Your task to perform on an android device: Go to Yahoo.com Image 0: 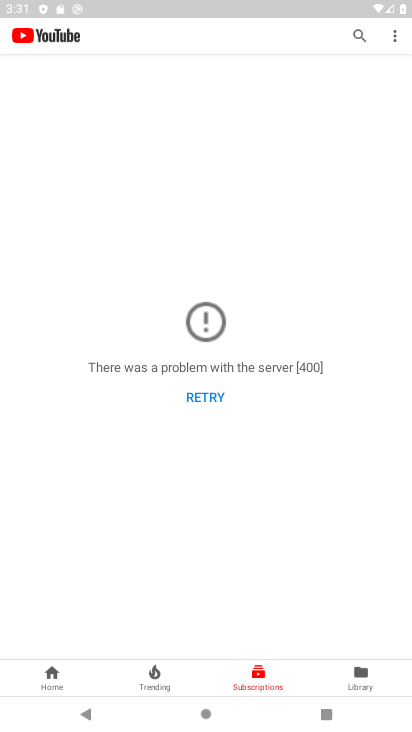
Step 0: press home button
Your task to perform on an android device: Go to Yahoo.com Image 1: 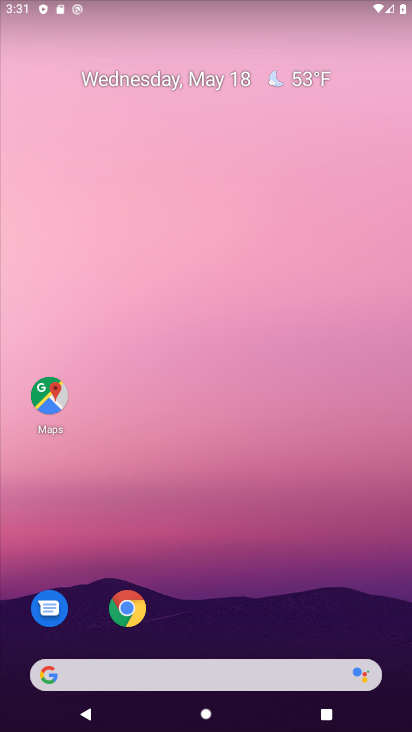
Step 1: drag from (232, 652) to (235, 6)
Your task to perform on an android device: Go to Yahoo.com Image 2: 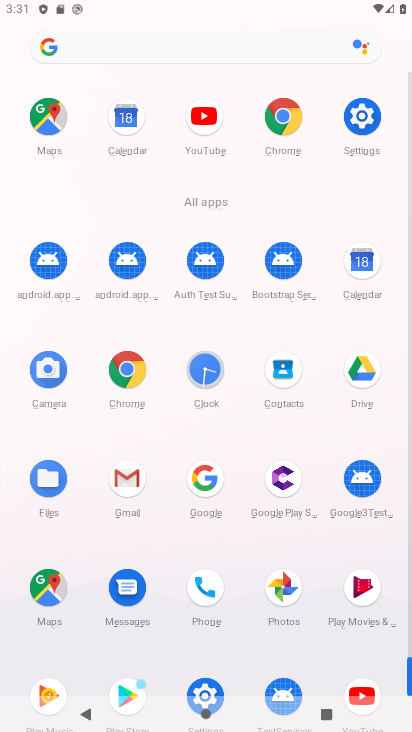
Step 2: click (115, 384)
Your task to perform on an android device: Go to Yahoo.com Image 3: 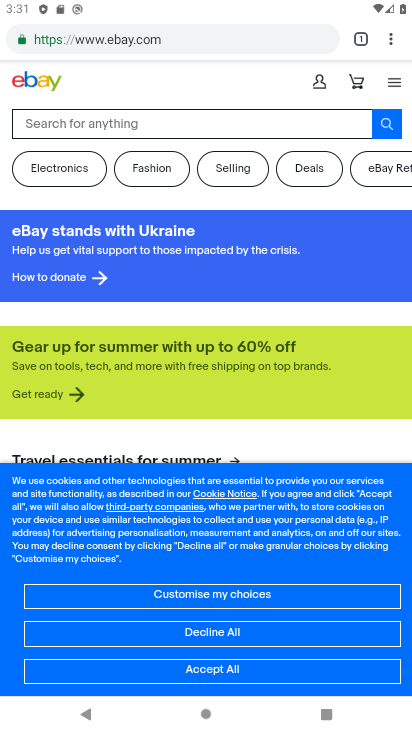
Step 3: click (212, 37)
Your task to perform on an android device: Go to Yahoo.com Image 4: 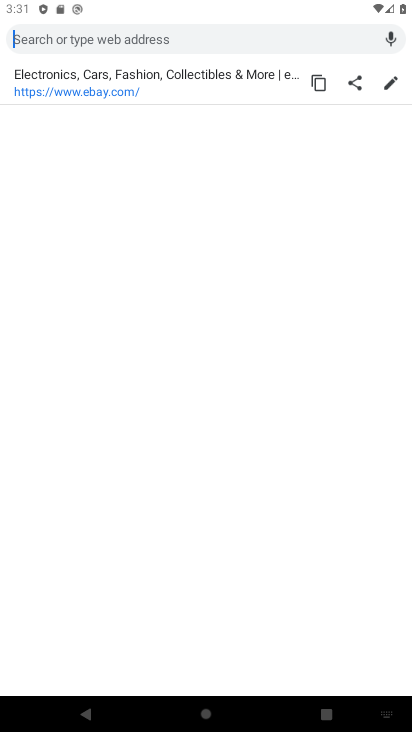
Step 4: type "yahoo.com"
Your task to perform on an android device: Go to Yahoo.com Image 5: 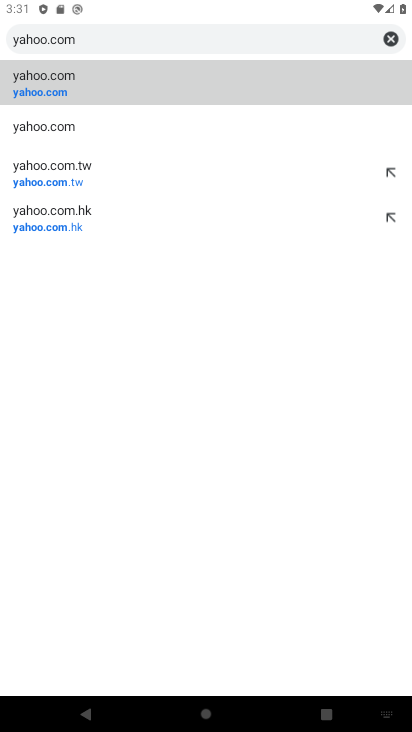
Step 5: click (39, 96)
Your task to perform on an android device: Go to Yahoo.com Image 6: 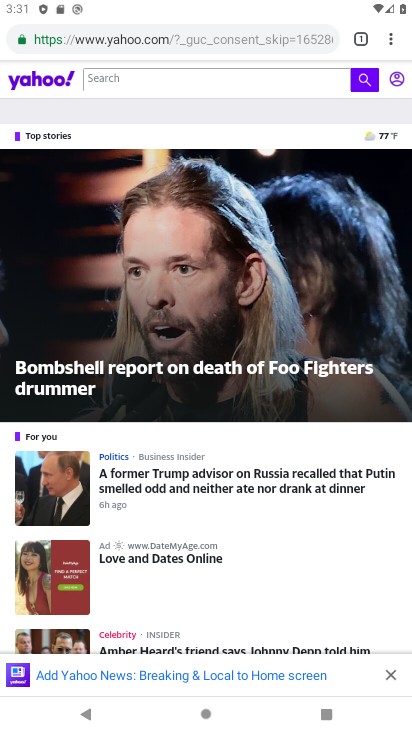
Step 6: task complete